Your task to perform on an android device: open sync settings in chrome Image 0: 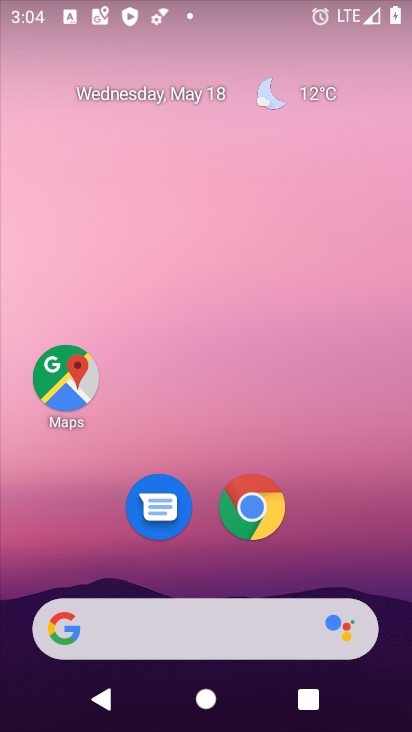
Step 0: click (252, 504)
Your task to perform on an android device: open sync settings in chrome Image 1: 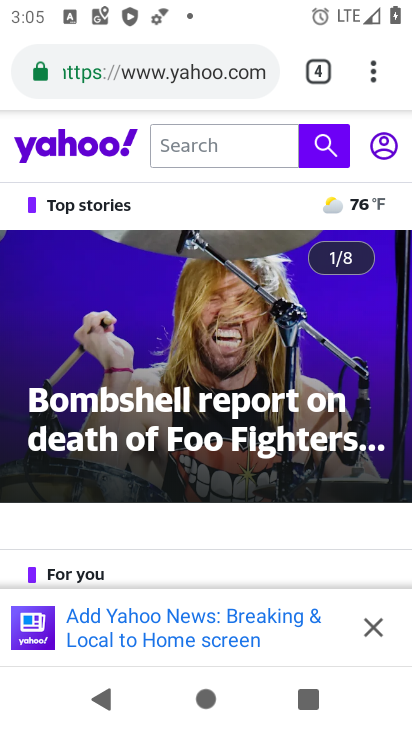
Step 1: click (370, 77)
Your task to perform on an android device: open sync settings in chrome Image 2: 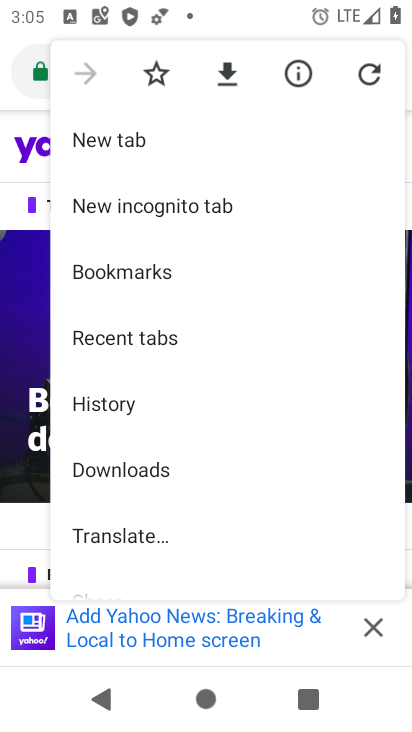
Step 2: drag from (193, 542) to (238, 201)
Your task to perform on an android device: open sync settings in chrome Image 3: 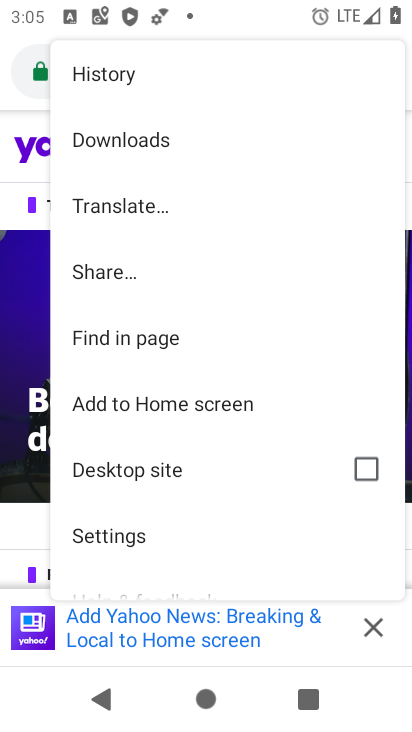
Step 3: click (119, 529)
Your task to perform on an android device: open sync settings in chrome Image 4: 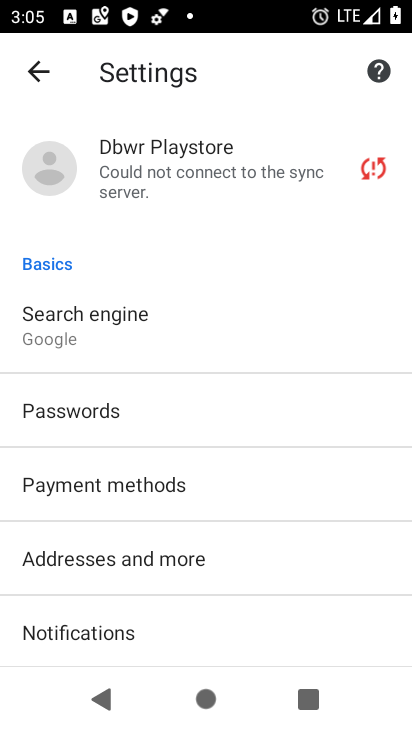
Step 4: click (134, 160)
Your task to perform on an android device: open sync settings in chrome Image 5: 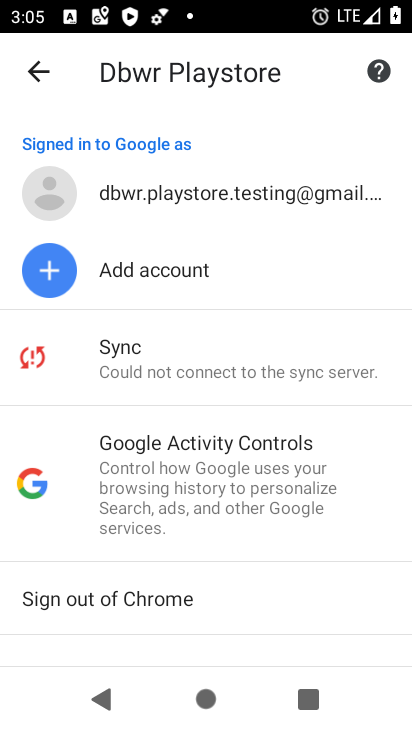
Step 5: click (122, 349)
Your task to perform on an android device: open sync settings in chrome Image 6: 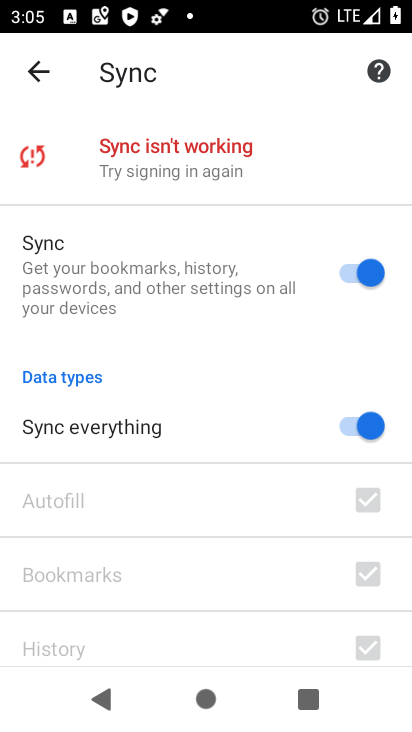
Step 6: task complete